Your task to perform on an android device: When is my next meeting? Image 0: 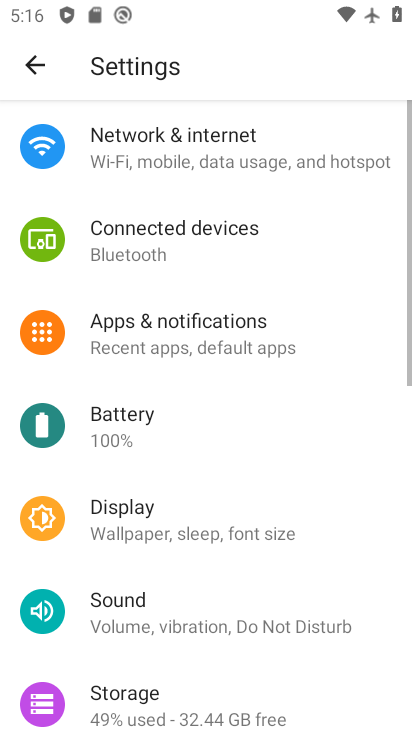
Step 0: press home button
Your task to perform on an android device: When is my next meeting? Image 1: 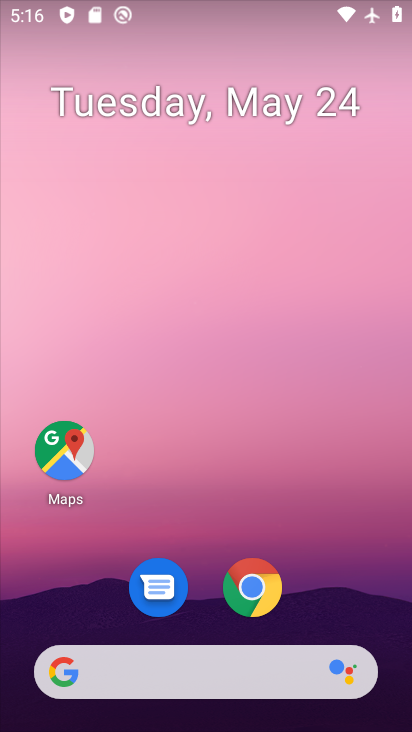
Step 1: drag from (347, 606) to (173, 62)
Your task to perform on an android device: When is my next meeting? Image 2: 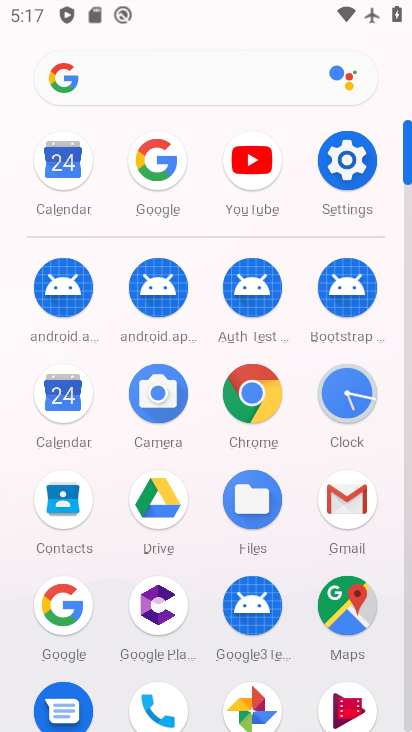
Step 2: click (217, 200)
Your task to perform on an android device: When is my next meeting? Image 3: 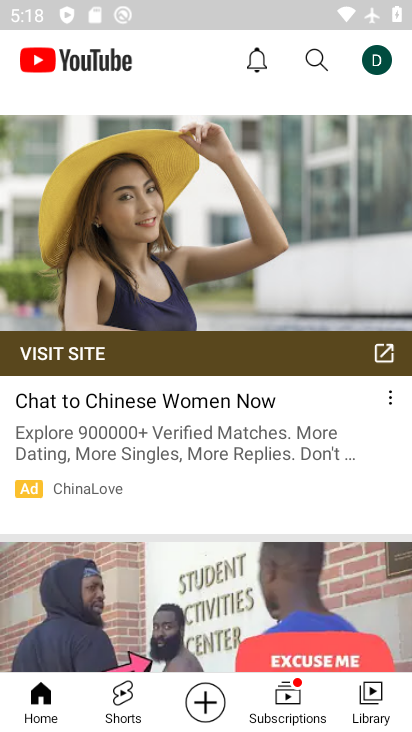
Step 3: press home button
Your task to perform on an android device: When is my next meeting? Image 4: 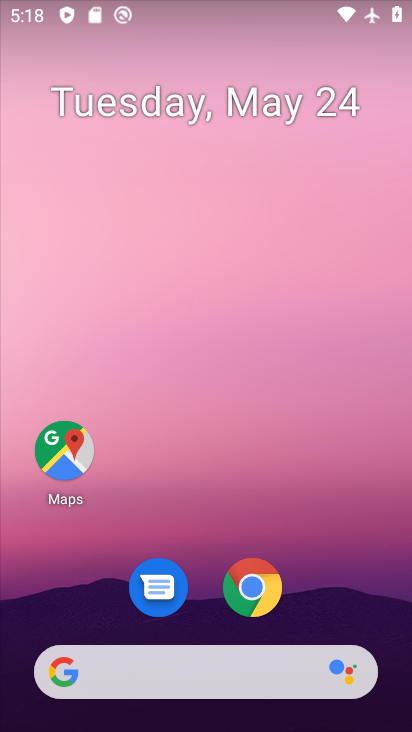
Step 4: drag from (340, 550) to (162, 95)
Your task to perform on an android device: When is my next meeting? Image 5: 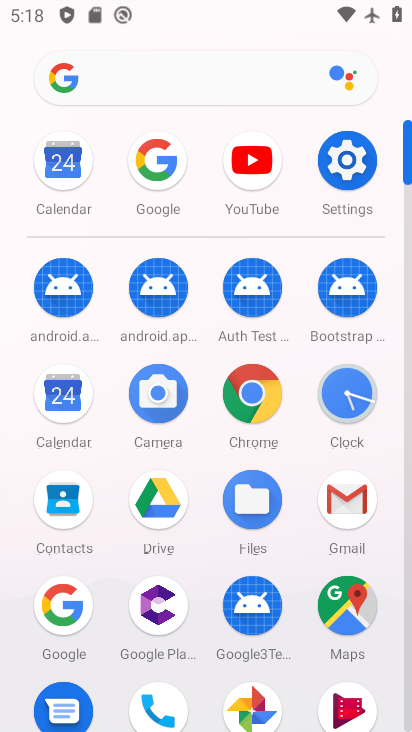
Step 5: click (72, 400)
Your task to perform on an android device: When is my next meeting? Image 6: 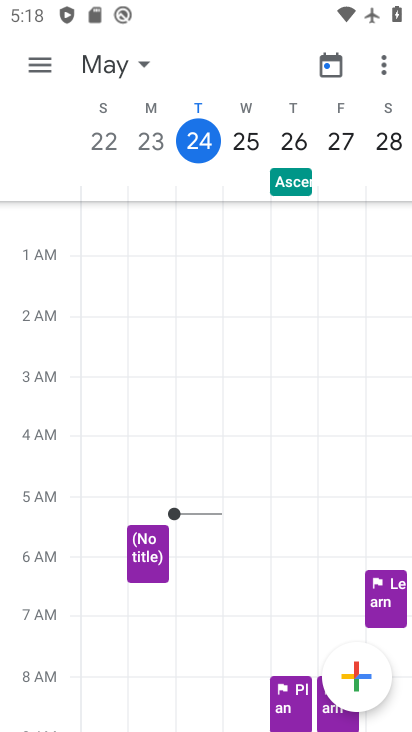
Step 6: task complete